Your task to perform on an android device: Go to wifi settings Image 0: 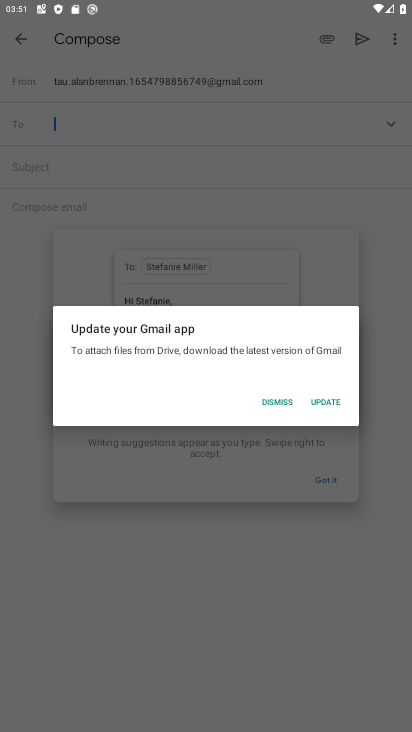
Step 0: press home button
Your task to perform on an android device: Go to wifi settings Image 1: 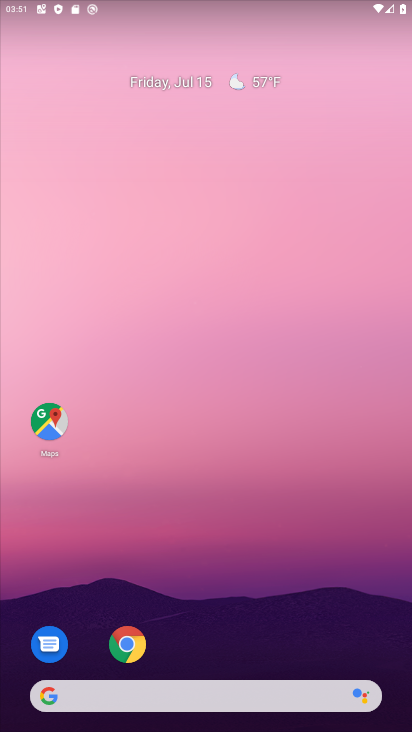
Step 1: drag from (337, 630) to (281, 16)
Your task to perform on an android device: Go to wifi settings Image 2: 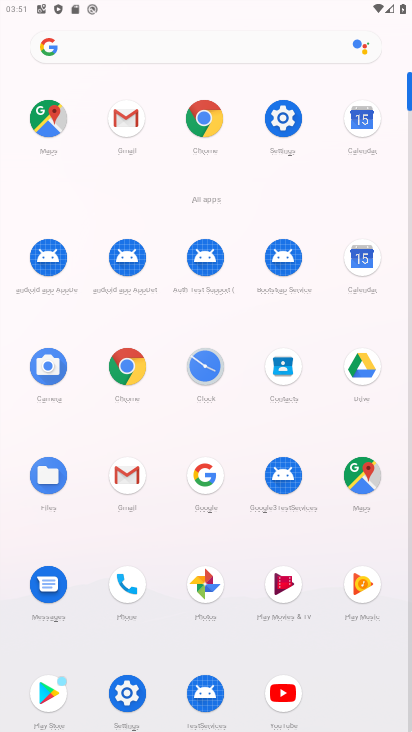
Step 2: click (272, 130)
Your task to perform on an android device: Go to wifi settings Image 3: 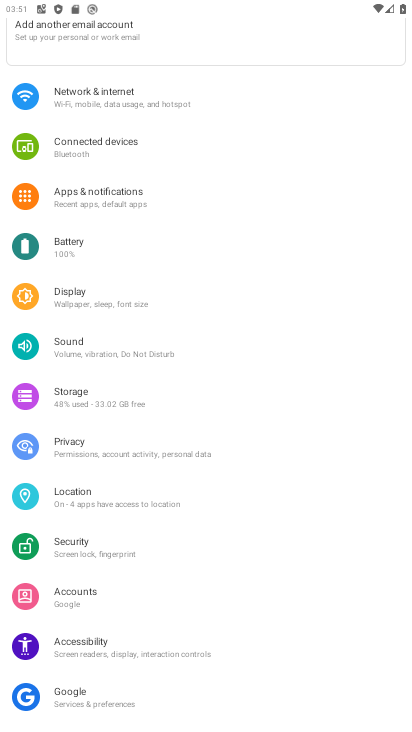
Step 3: click (172, 100)
Your task to perform on an android device: Go to wifi settings Image 4: 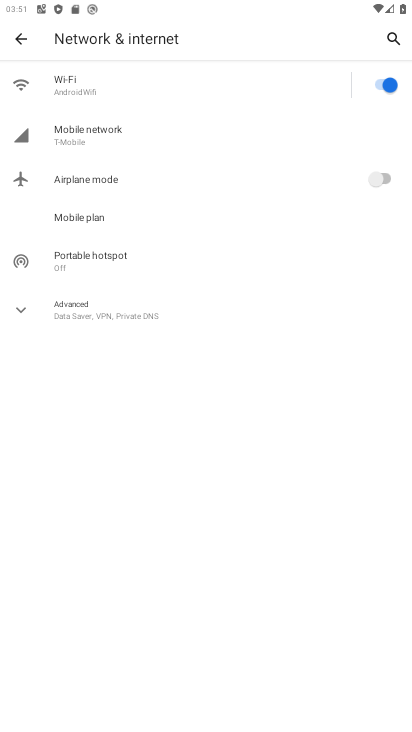
Step 4: click (214, 80)
Your task to perform on an android device: Go to wifi settings Image 5: 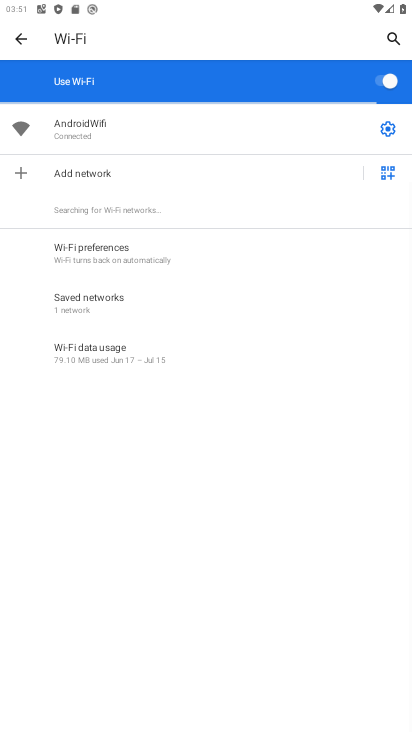
Step 5: task complete